Your task to perform on an android device: choose inbox layout in the gmail app Image 0: 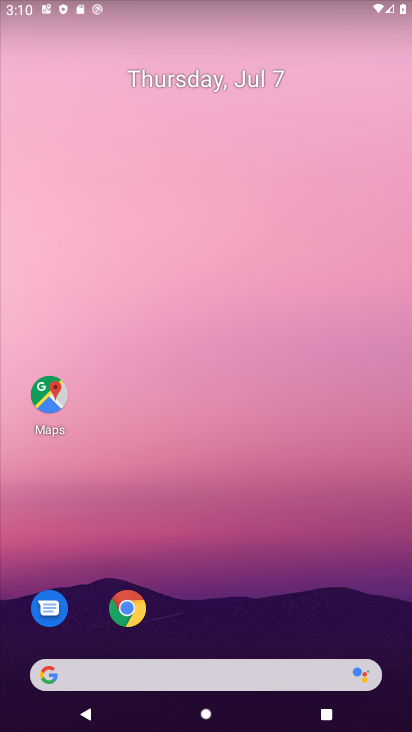
Step 0: drag from (394, 626) to (363, 234)
Your task to perform on an android device: choose inbox layout in the gmail app Image 1: 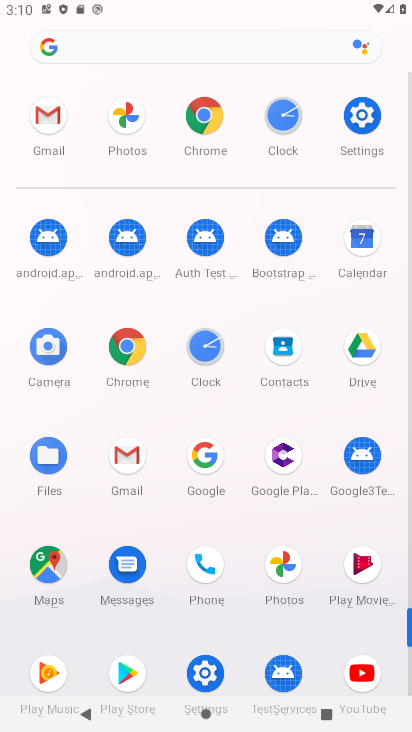
Step 1: click (127, 455)
Your task to perform on an android device: choose inbox layout in the gmail app Image 2: 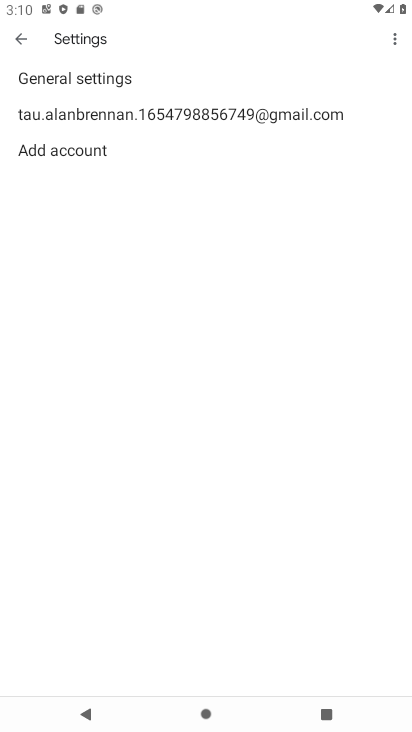
Step 2: press back button
Your task to perform on an android device: choose inbox layout in the gmail app Image 3: 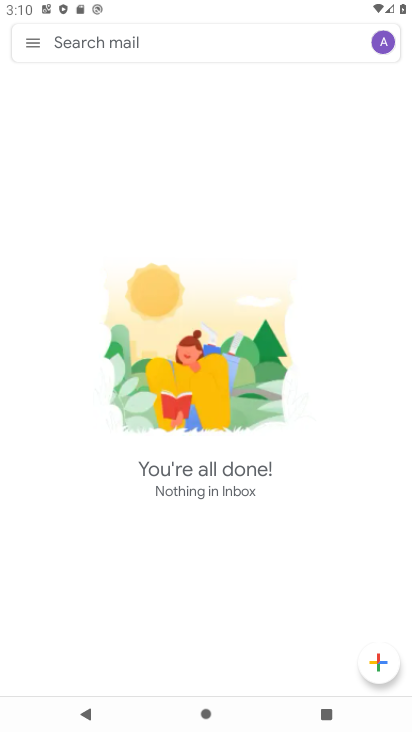
Step 3: click (36, 43)
Your task to perform on an android device: choose inbox layout in the gmail app Image 4: 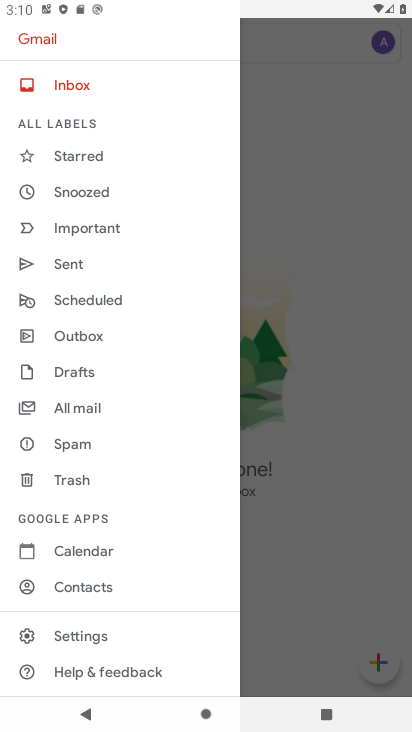
Step 4: click (90, 635)
Your task to perform on an android device: choose inbox layout in the gmail app Image 5: 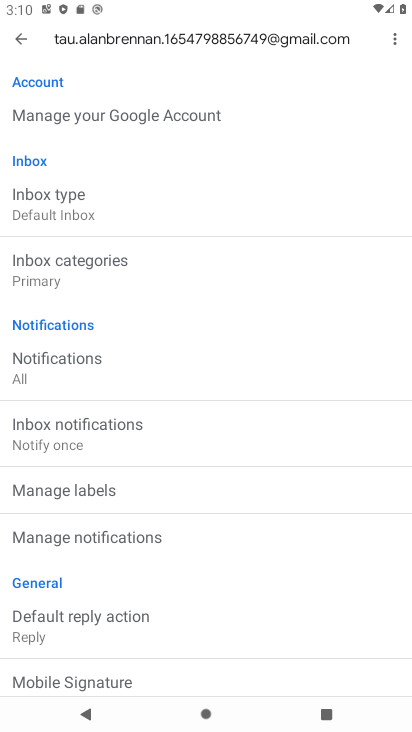
Step 5: click (59, 202)
Your task to perform on an android device: choose inbox layout in the gmail app Image 6: 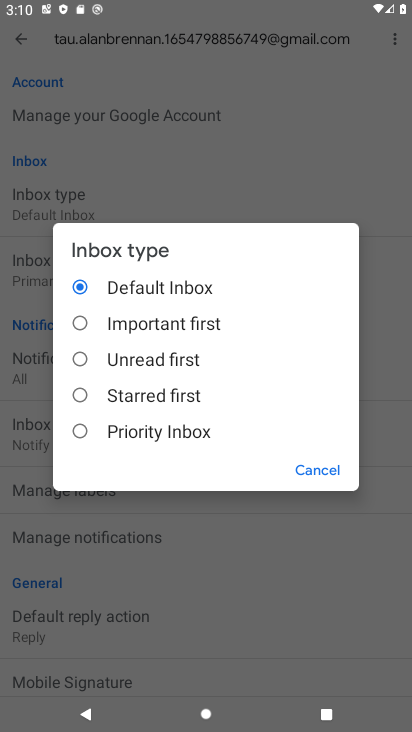
Step 6: click (78, 328)
Your task to perform on an android device: choose inbox layout in the gmail app Image 7: 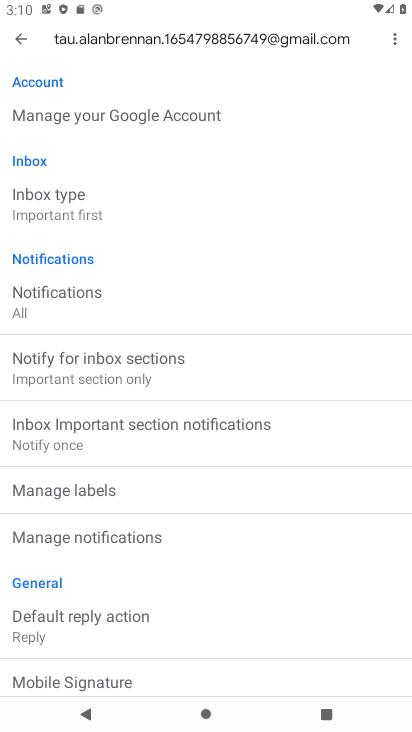
Step 7: task complete